Your task to perform on an android device: turn on data saver in the chrome app Image 0: 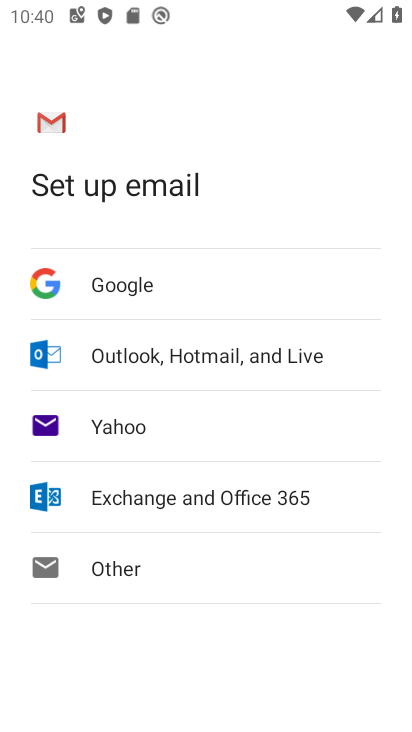
Step 0: press home button
Your task to perform on an android device: turn on data saver in the chrome app Image 1: 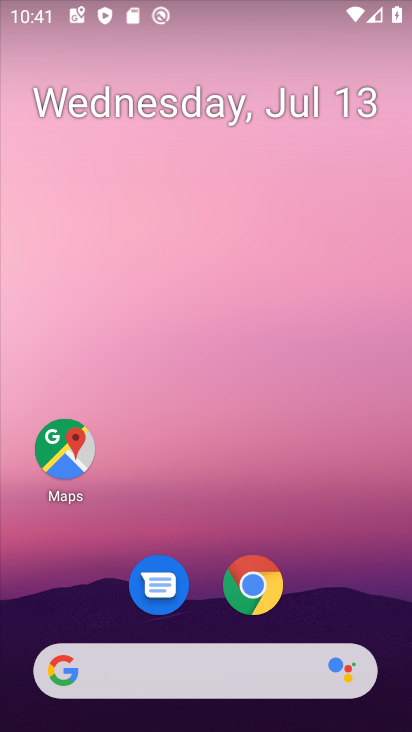
Step 1: click (265, 585)
Your task to perform on an android device: turn on data saver in the chrome app Image 2: 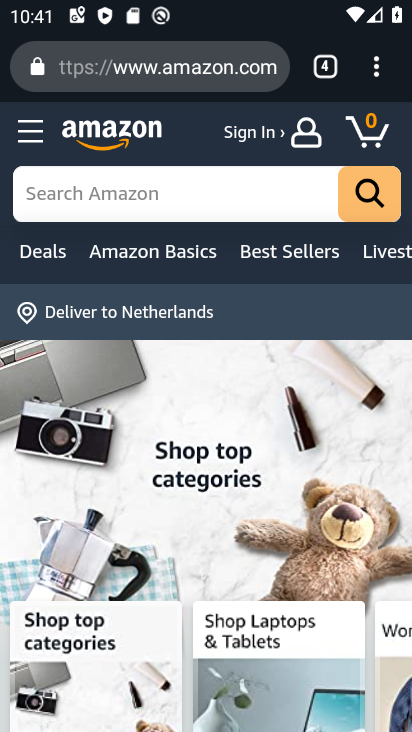
Step 2: click (373, 72)
Your task to perform on an android device: turn on data saver in the chrome app Image 3: 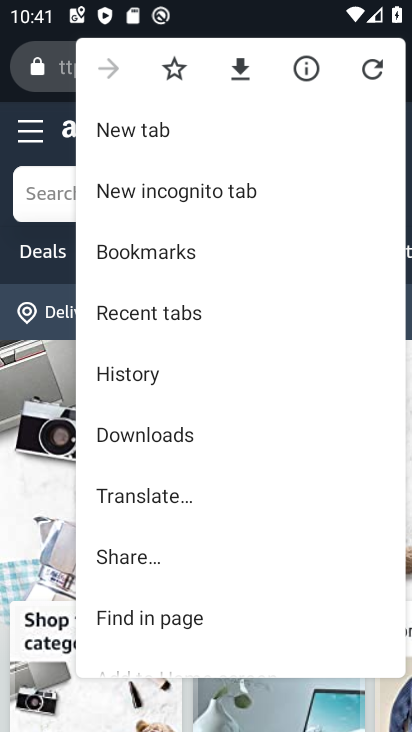
Step 3: drag from (204, 566) to (263, 125)
Your task to perform on an android device: turn on data saver in the chrome app Image 4: 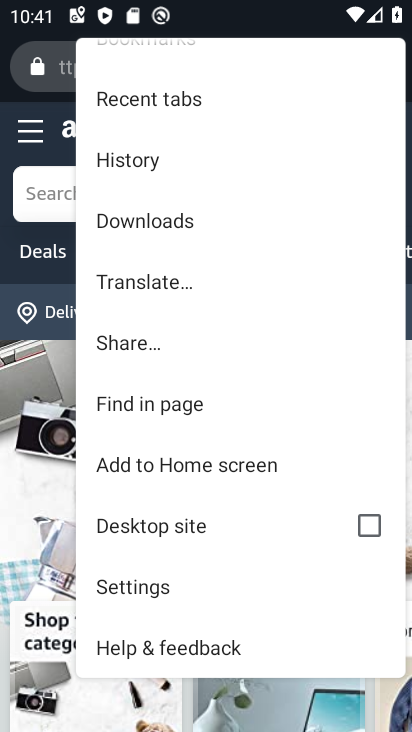
Step 4: click (152, 586)
Your task to perform on an android device: turn on data saver in the chrome app Image 5: 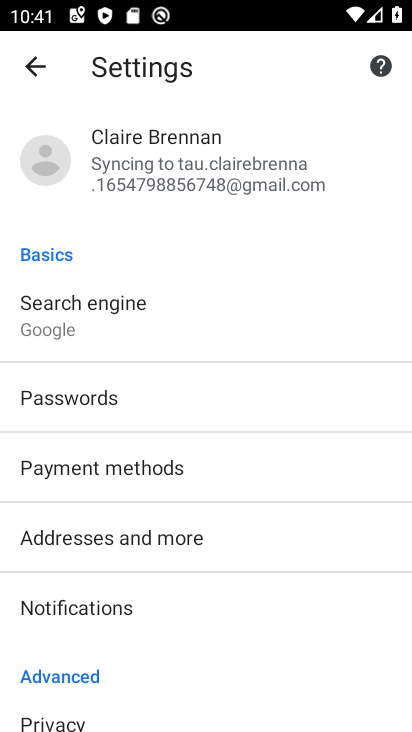
Step 5: drag from (247, 615) to (211, 205)
Your task to perform on an android device: turn on data saver in the chrome app Image 6: 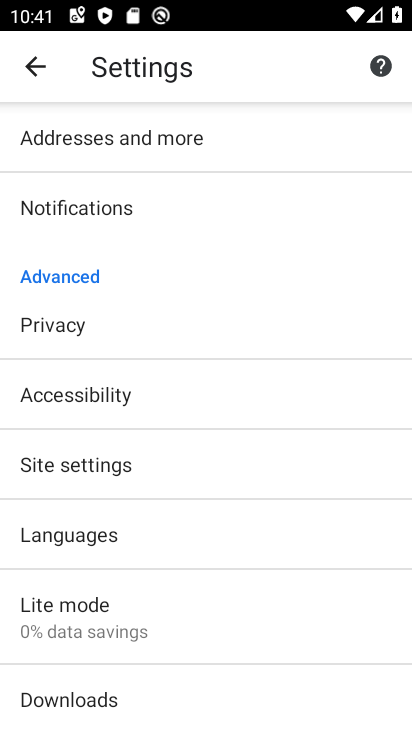
Step 6: click (200, 639)
Your task to perform on an android device: turn on data saver in the chrome app Image 7: 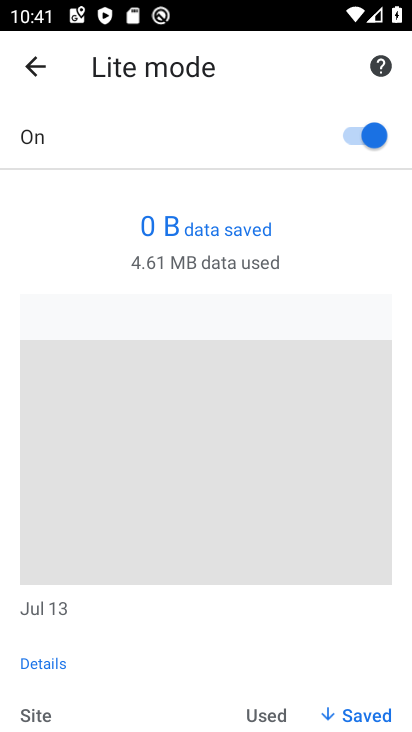
Step 7: task complete